Your task to perform on an android device: Go to accessibility settings Image 0: 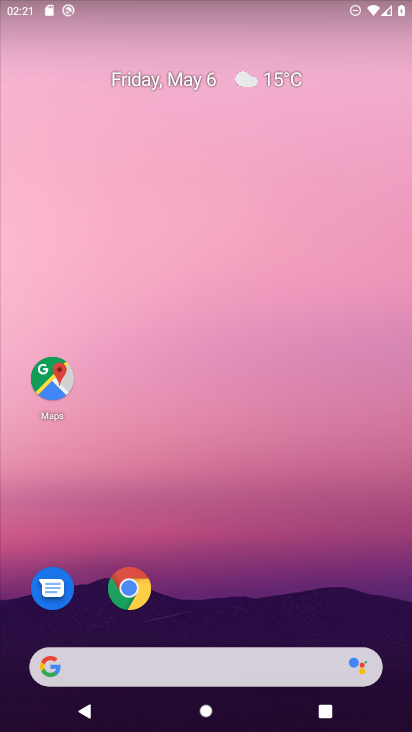
Step 0: drag from (243, 611) to (141, 171)
Your task to perform on an android device: Go to accessibility settings Image 1: 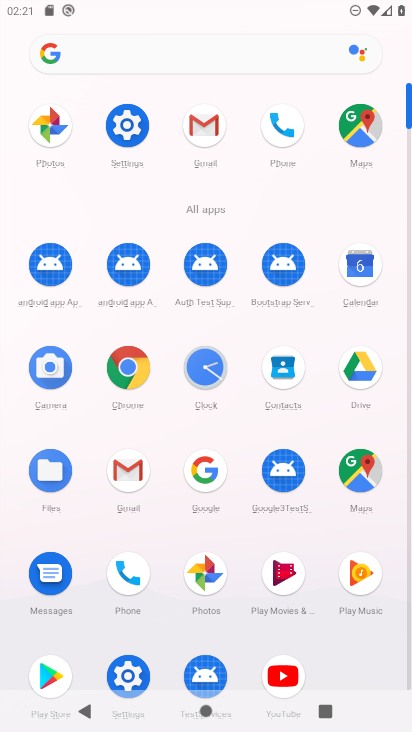
Step 1: click (126, 141)
Your task to perform on an android device: Go to accessibility settings Image 2: 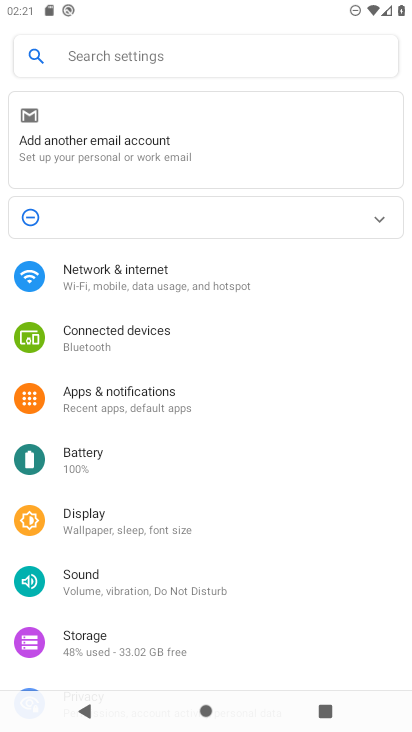
Step 2: drag from (200, 5) to (250, 29)
Your task to perform on an android device: Go to accessibility settings Image 3: 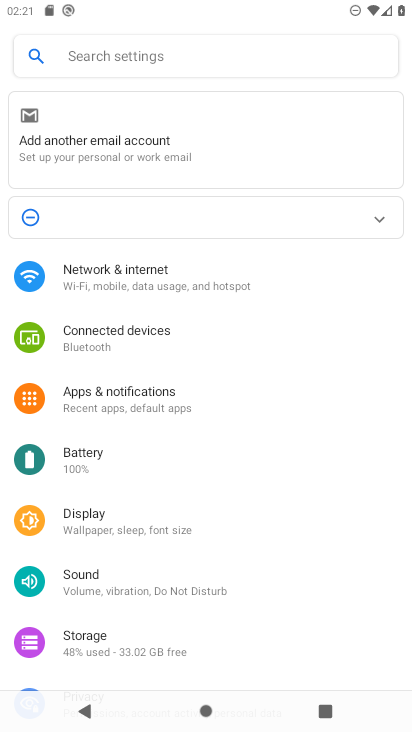
Step 3: drag from (299, 593) to (213, 72)
Your task to perform on an android device: Go to accessibility settings Image 4: 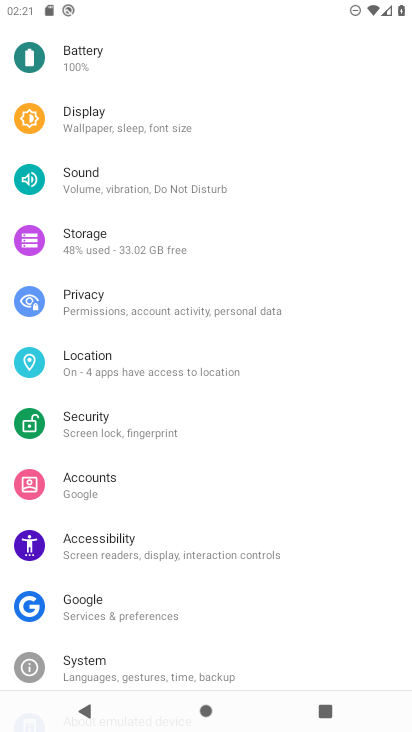
Step 4: click (125, 546)
Your task to perform on an android device: Go to accessibility settings Image 5: 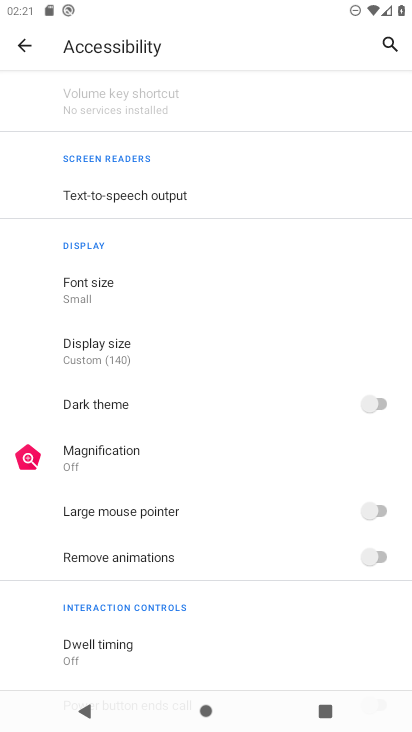
Step 5: task complete